Your task to perform on an android device: check storage Image 0: 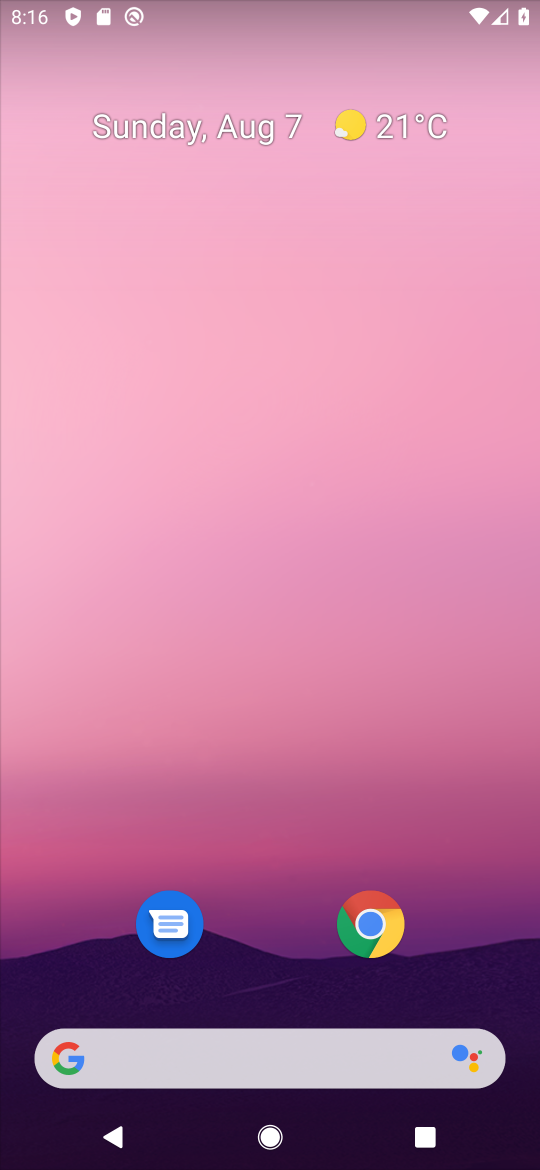
Step 0: drag from (275, 857) to (362, 6)
Your task to perform on an android device: check storage Image 1: 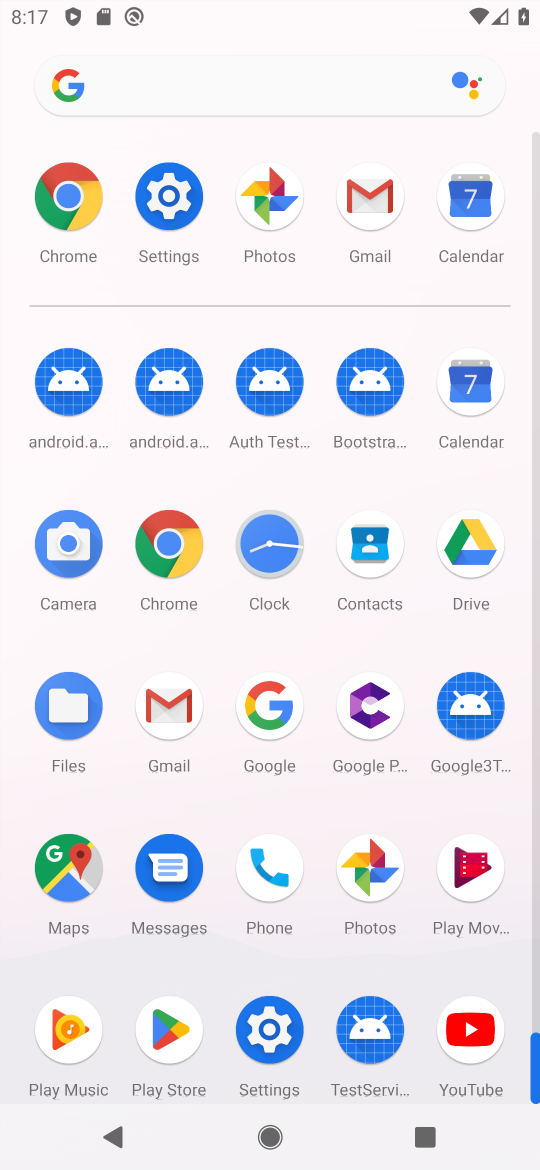
Step 1: click (174, 194)
Your task to perform on an android device: check storage Image 2: 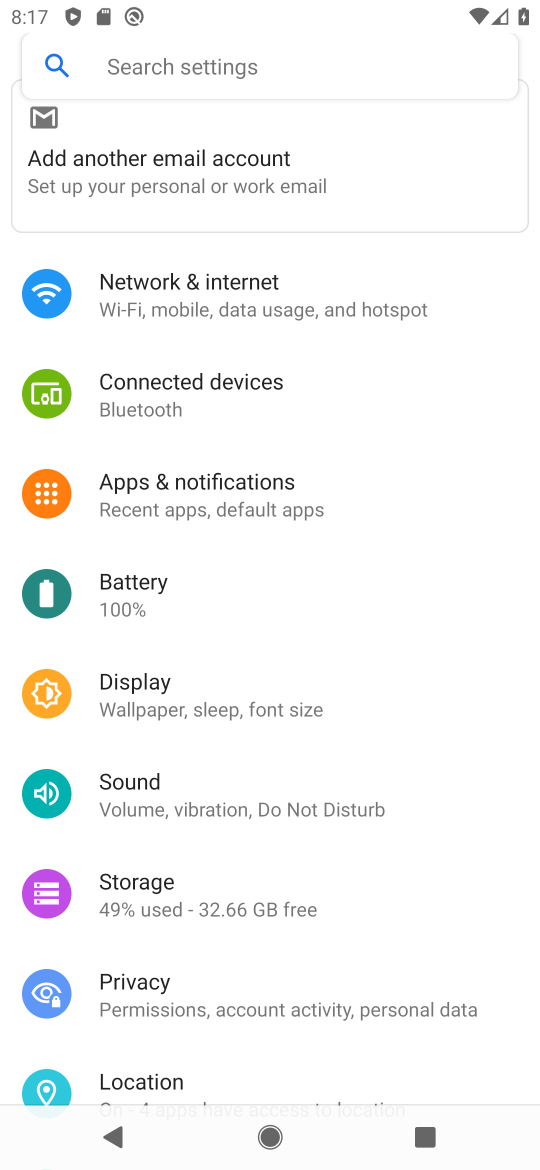
Step 2: click (211, 894)
Your task to perform on an android device: check storage Image 3: 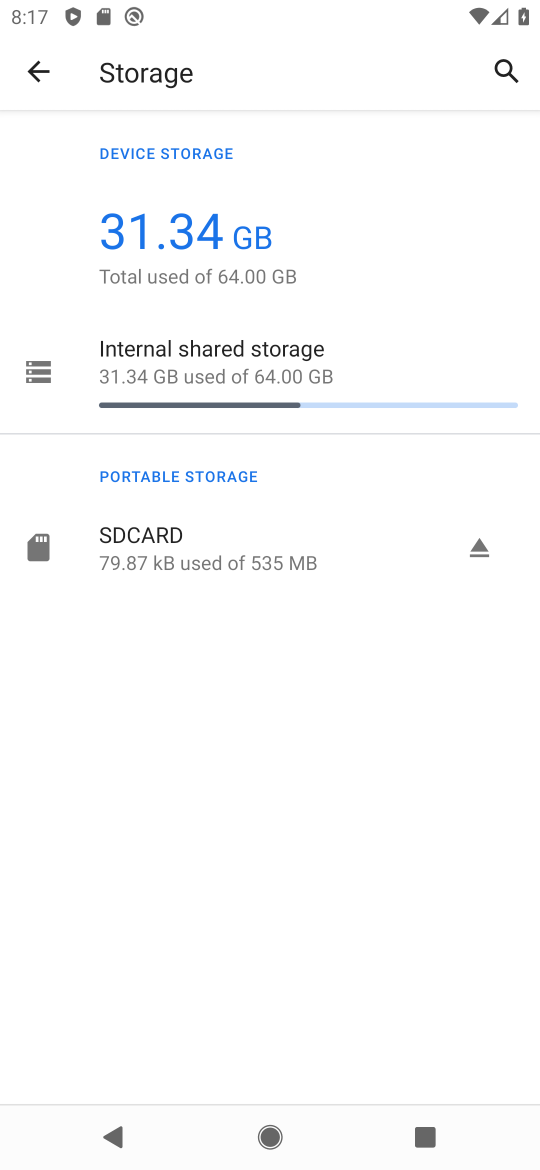
Step 3: task complete